Your task to perform on an android device: toggle notification dots Image 0: 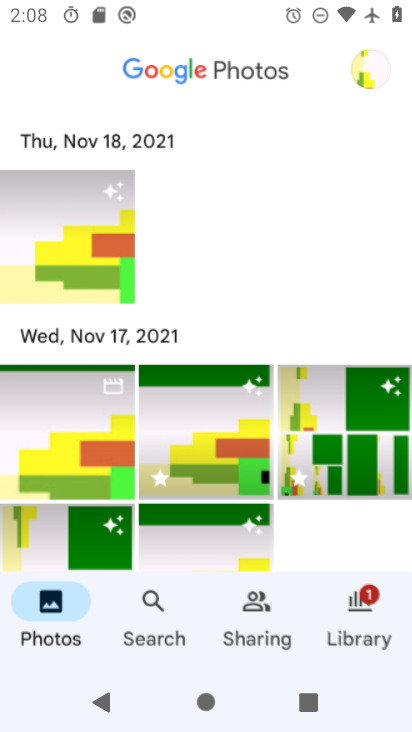
Step 0: press home button
Your task to perform on an android device: toggle notification dots Image 1: 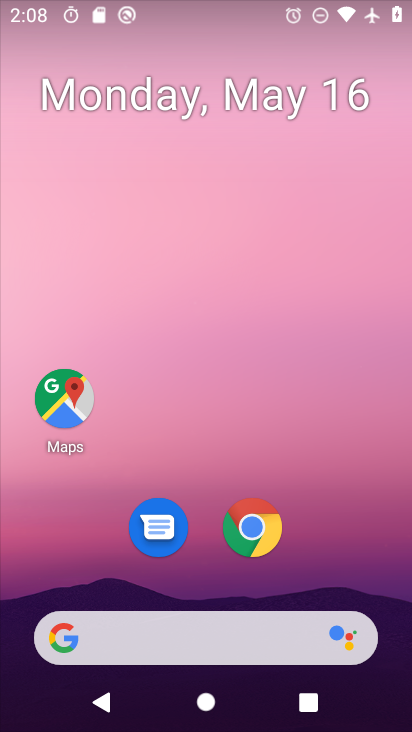
Step 1: drag from (154, 639) to (301, 144)
Your task to perform on an android device: toggle notification dots Image 2: 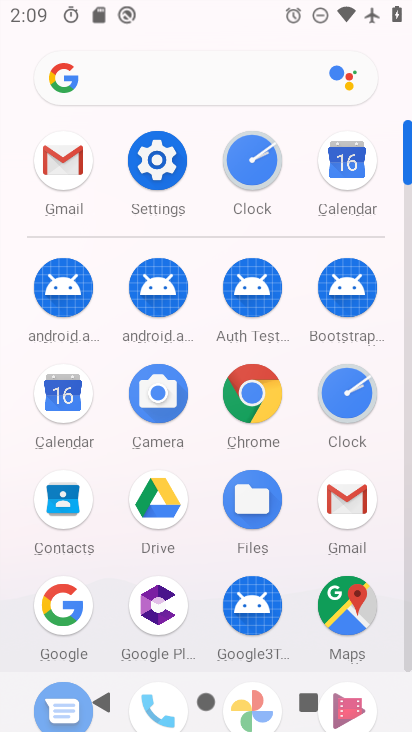
Step 2: click (158, 172)
Your task to perform on an android device: toggle notification dots Image 3: 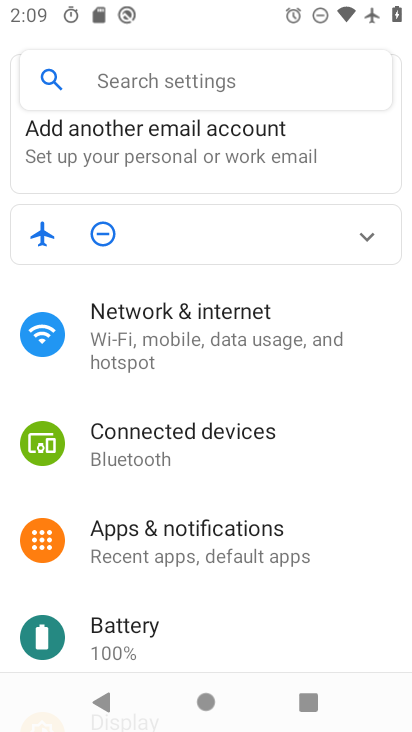
Step 3: click (213, 529)
Your task to perform on an android device: toggle notification dots Image 4: 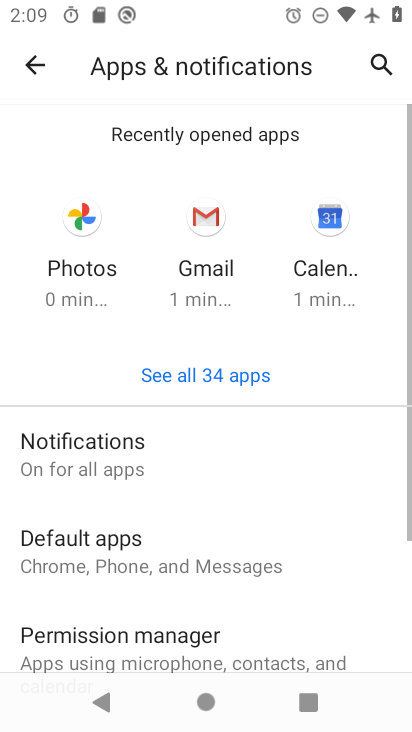
Step 4: click (111, 454)
Your task to perform on an android device: toggle notification dots Image 5: 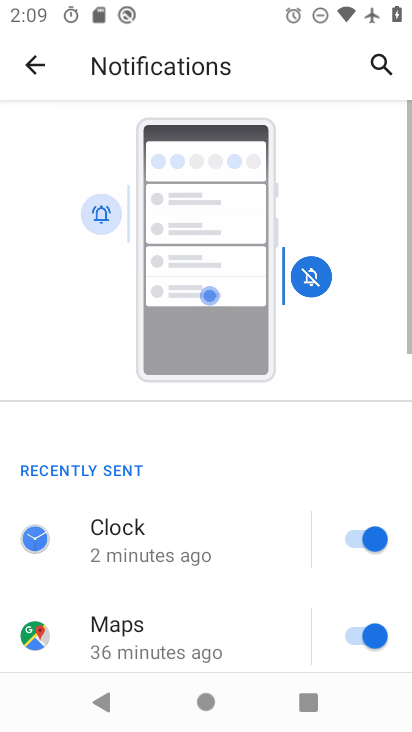
Step 5: drag from (229, 622) to (381, 43)
Your task to perform on an android device: toggle notification dots Image 6: 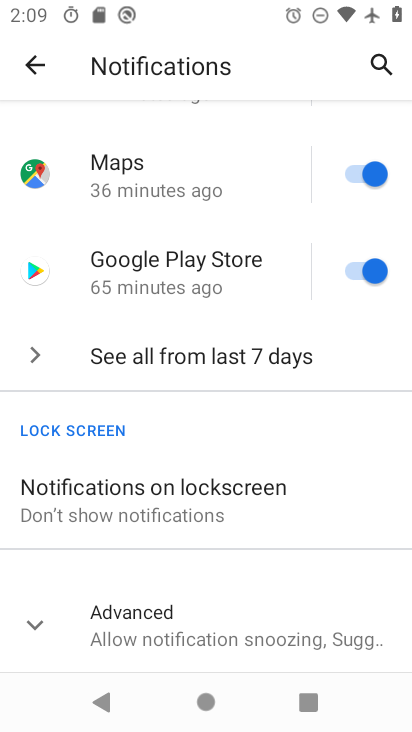
Step 6: click (172, 633)
Your task to perform on an android device: toggle notification dots Image 7: 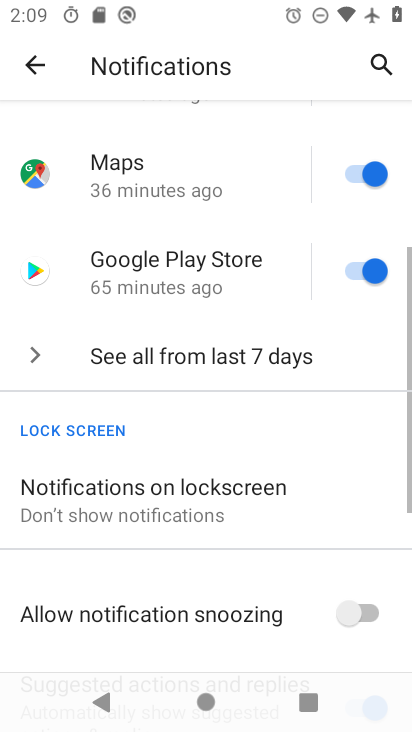
Step 7: drag from (197, 631) to (319, 221)
Your task to perform on an android device: toggle notification dots Image 8: 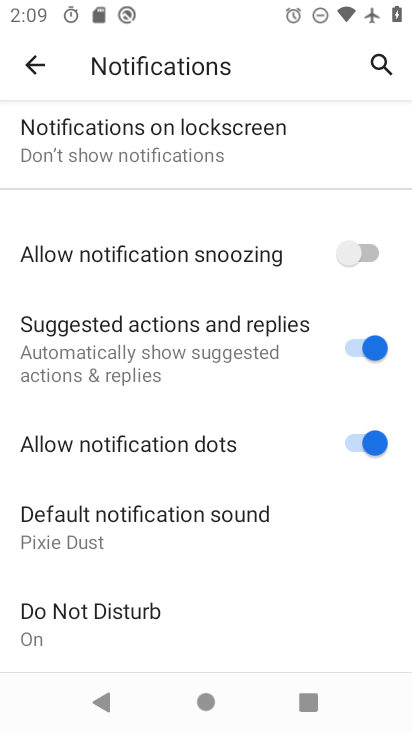
Step 8: click (357, 442)
Your task to perform on an android device: toggle notification dots Image 9: 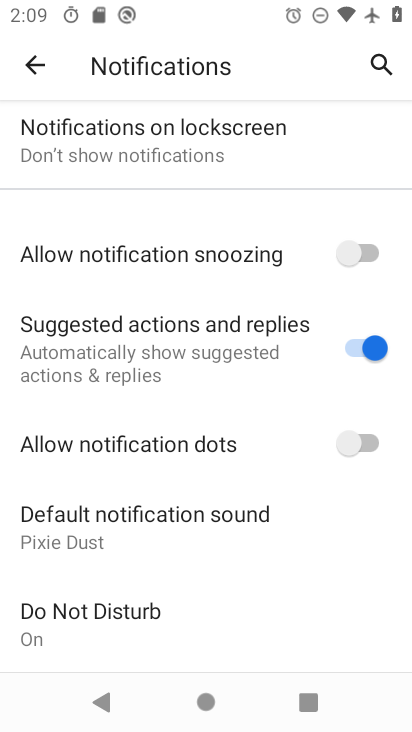
Step 9: task complete